Your task to perform on an android device: change text size in settings app Image 0: 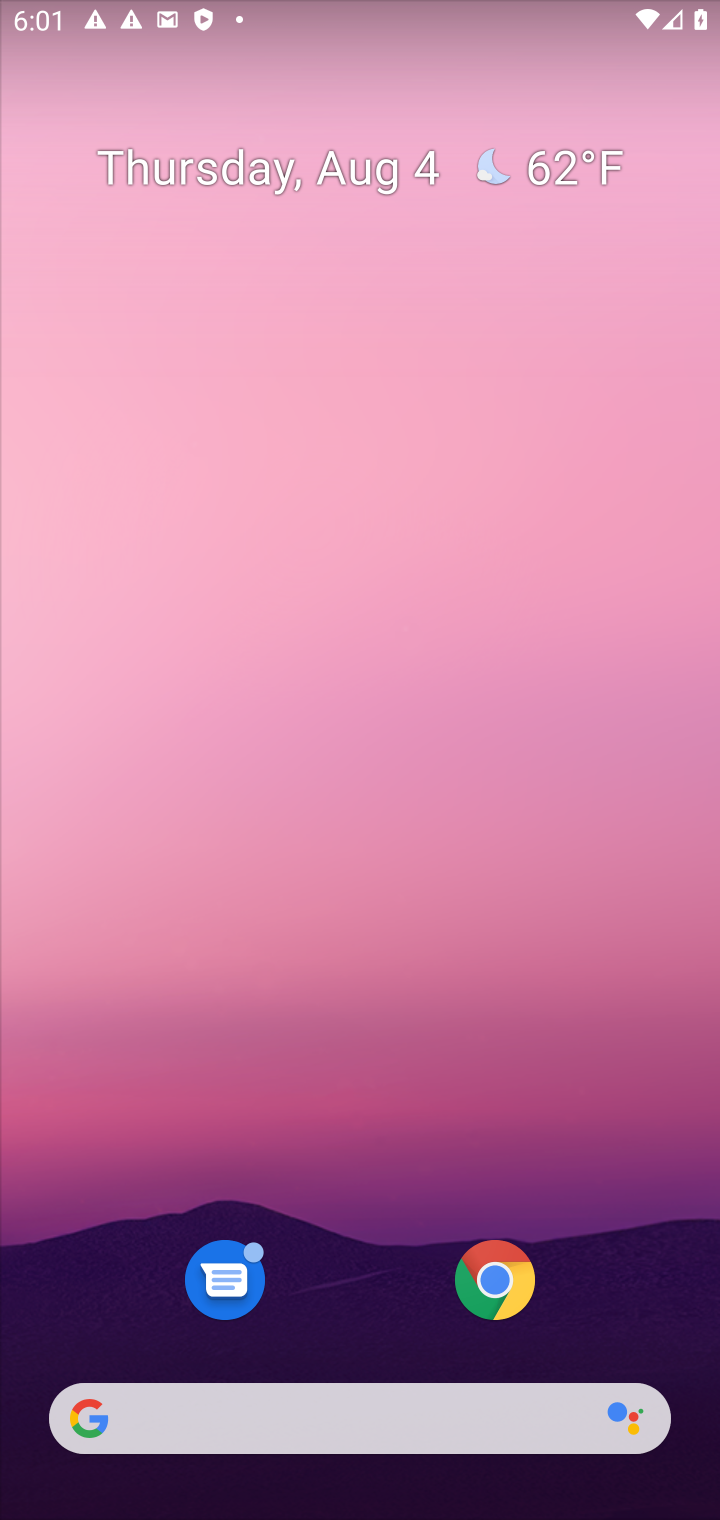
Step 0: press back button
Your task to perform on an android device: change text size in settings app Image 1: 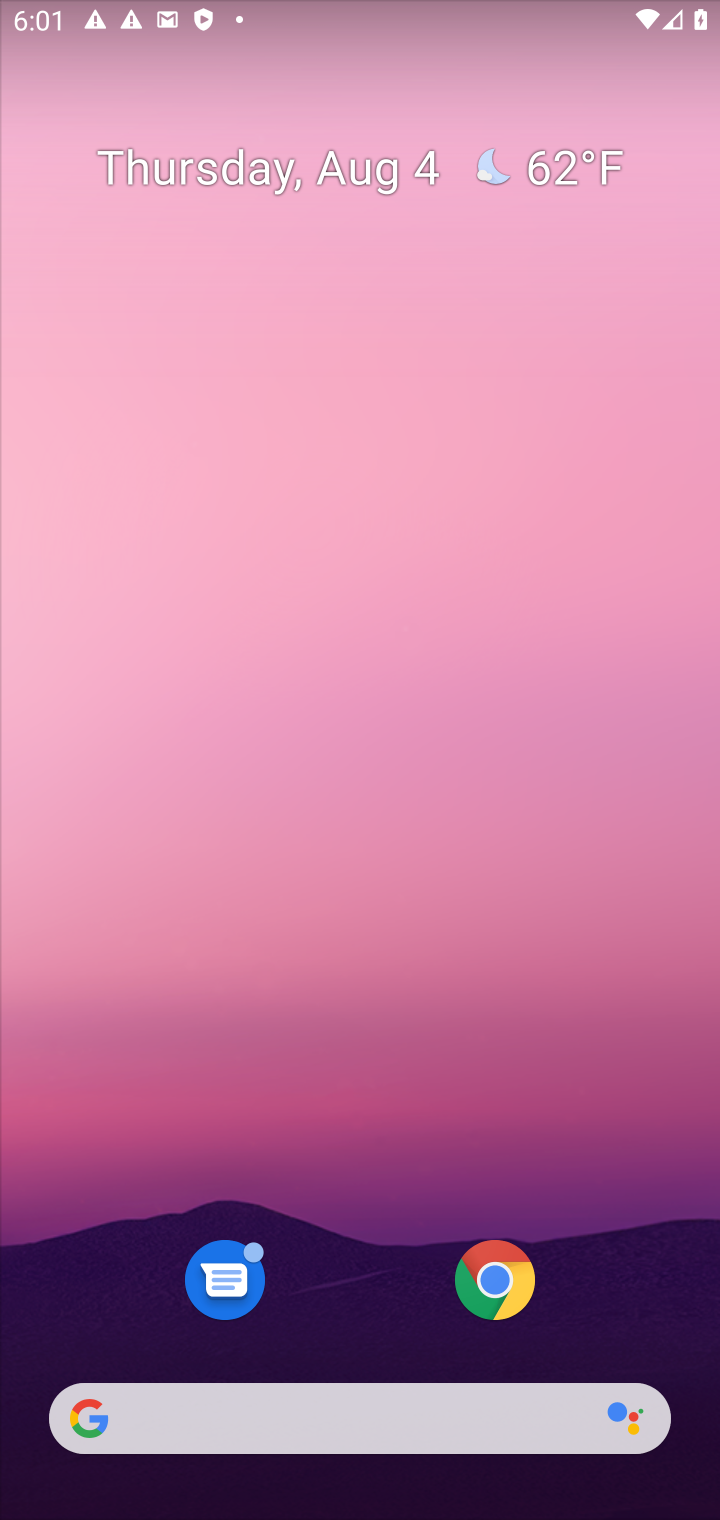
Step 1: drag from (425, 532) to (470, 232)
Your task to perform on an android device: change text size in settings app Image 2: 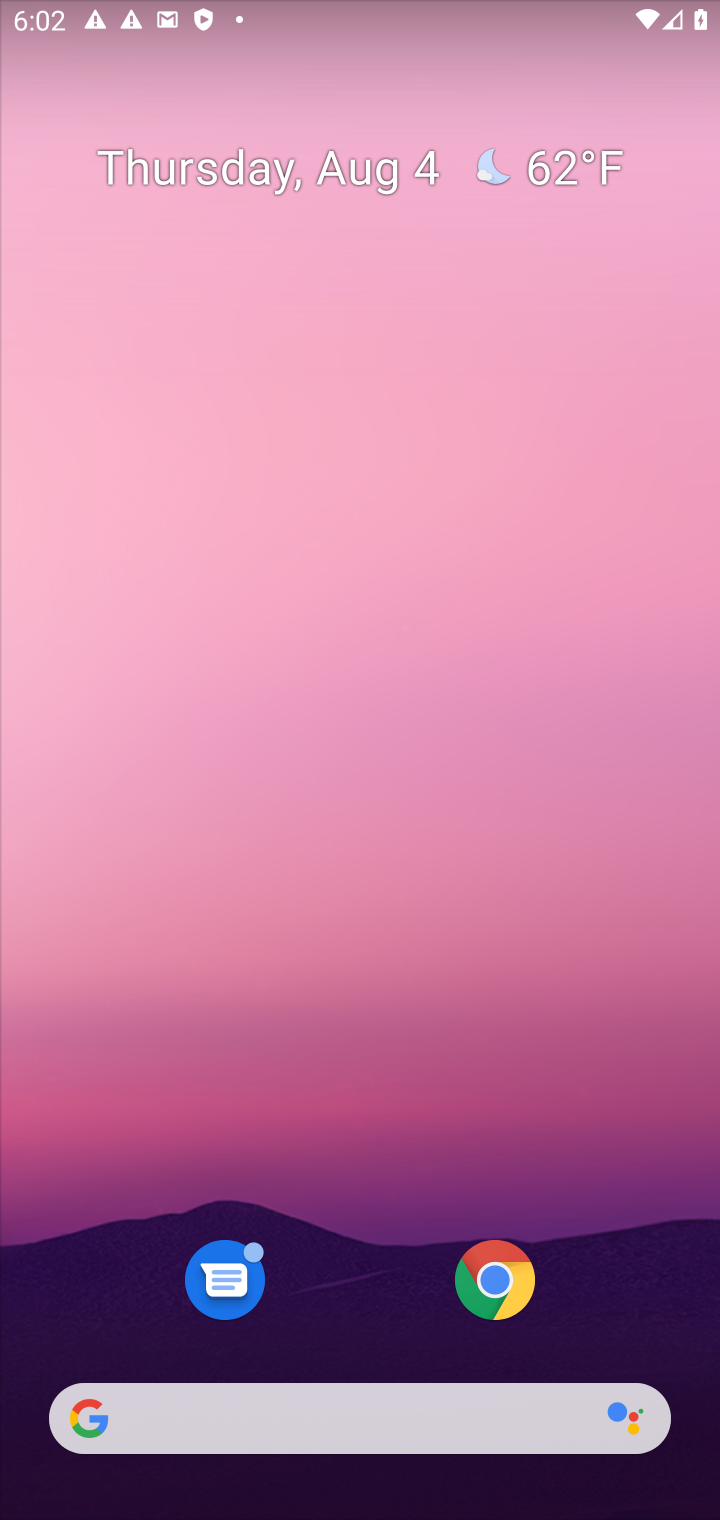
Step 2: drag from (350, 1214) to (438, 191)
Your task to perform on an android device: change text size in settings app Image 3: 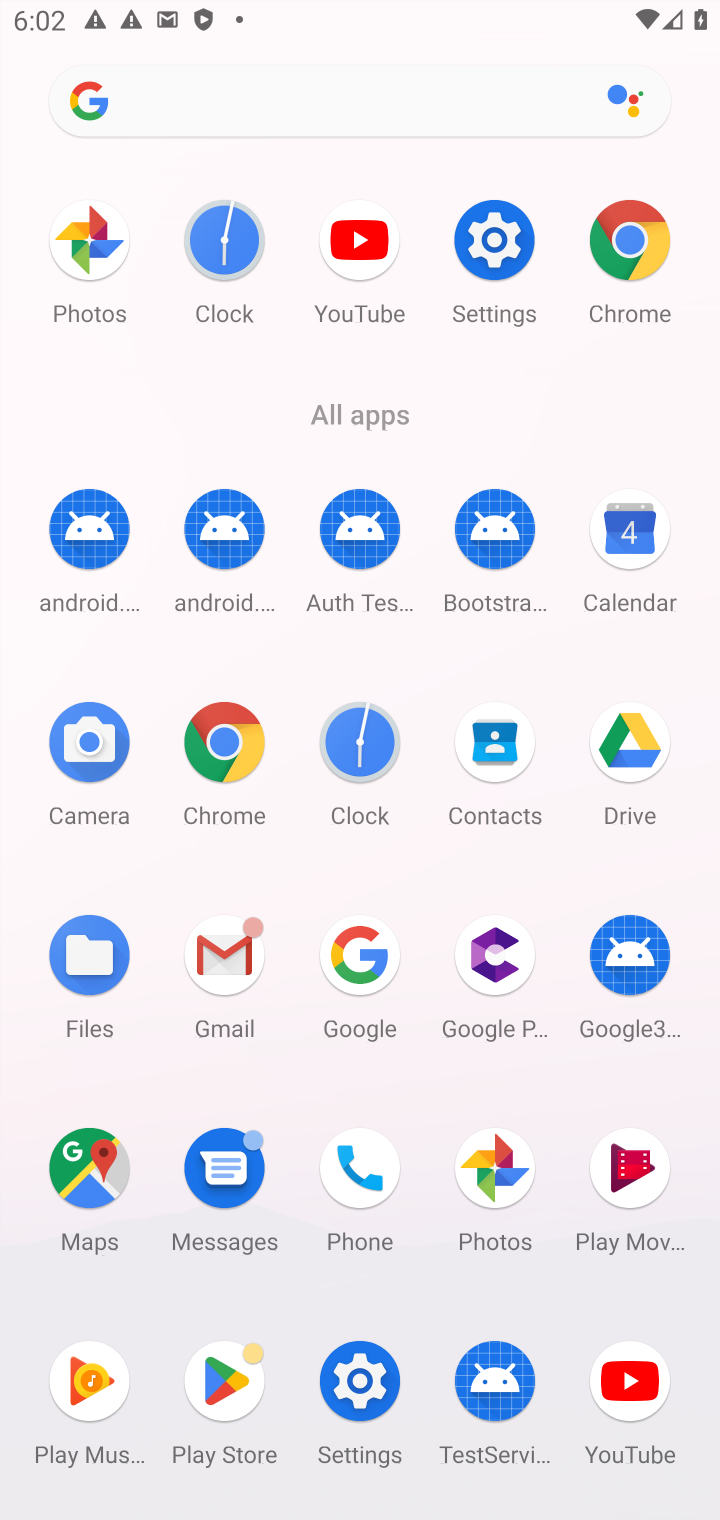
Step 3: click (508, 218)
Your task to perform on an android device: change text size in settings app Image 4: 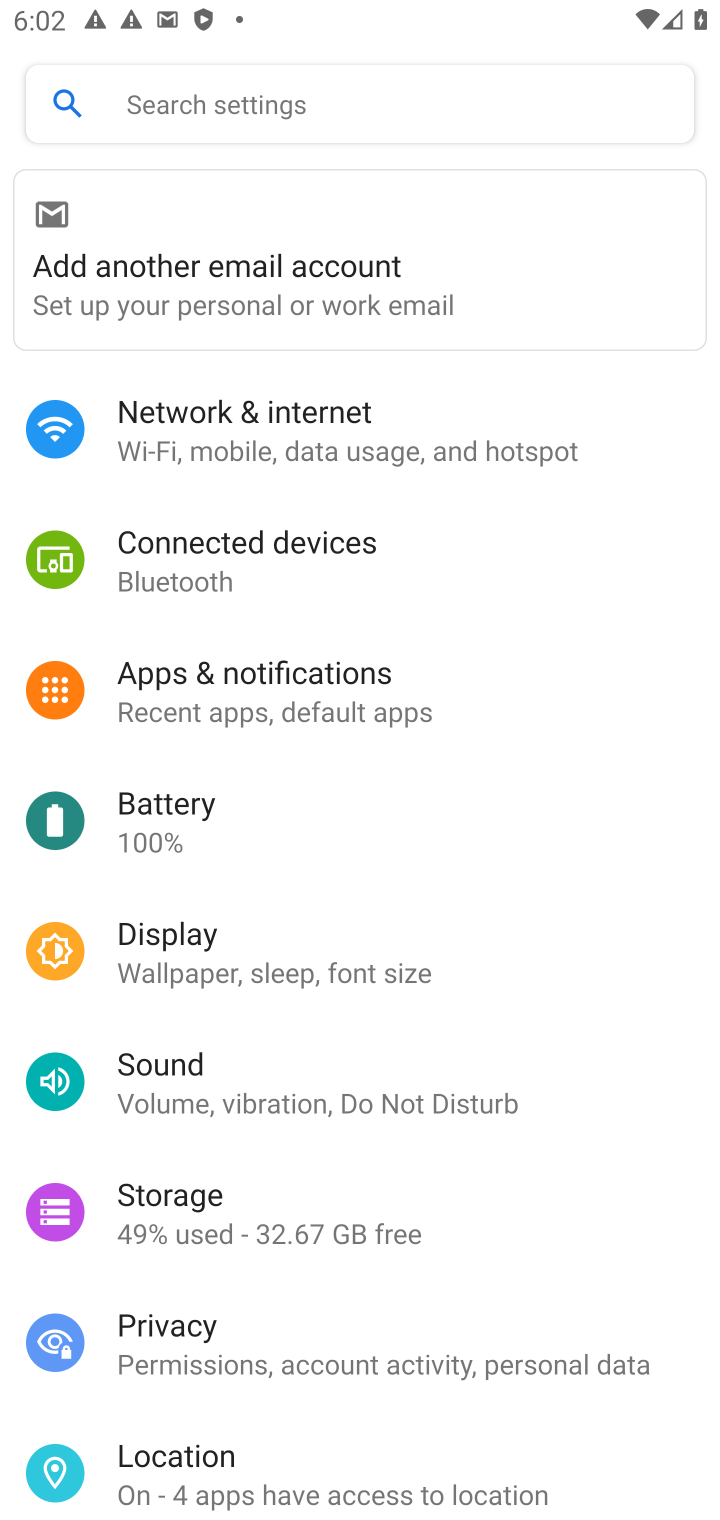
Step 4: click (157, 932)
Your task to perform on an android device: change text size in settings app Image 5: 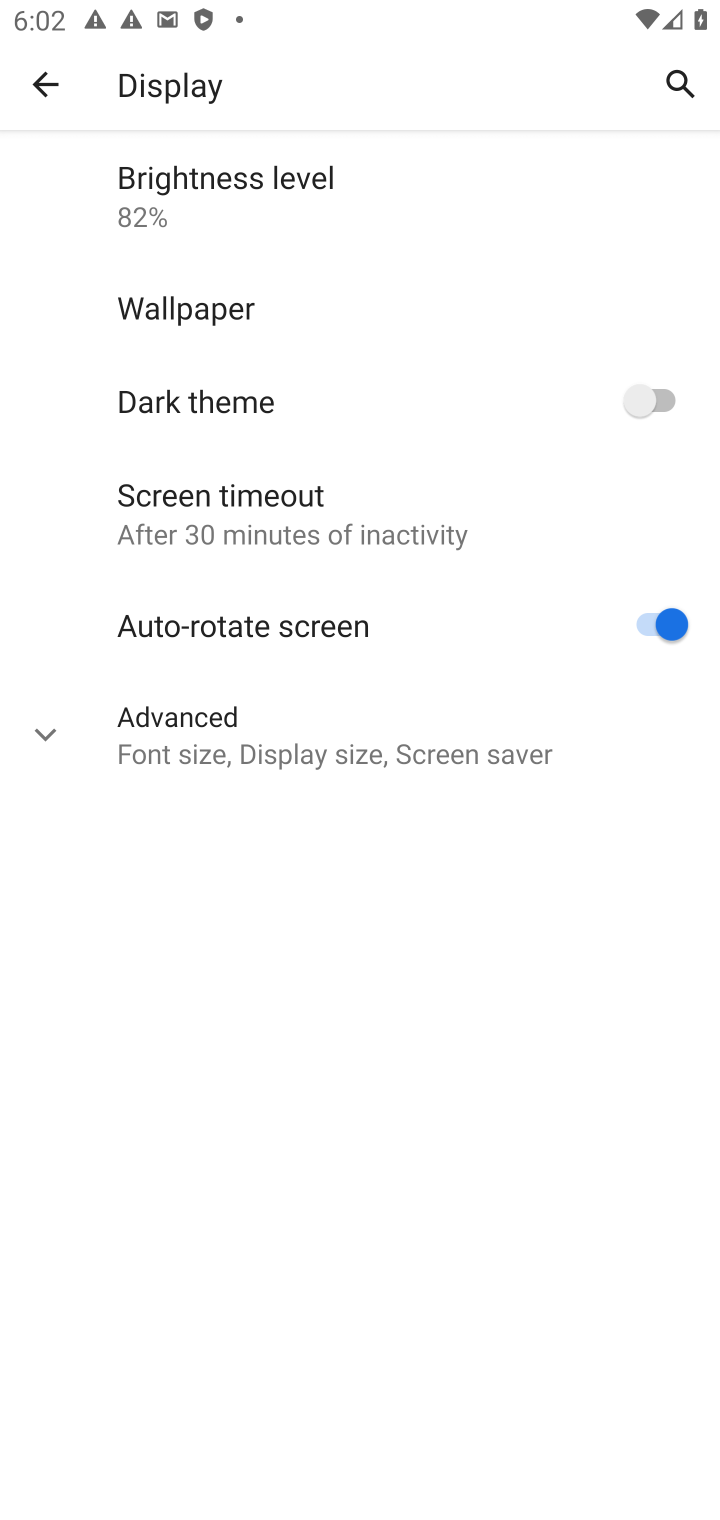
Step 5: click (312, 756)
Your task to perform on an android device: change text size in settings app Image 6: 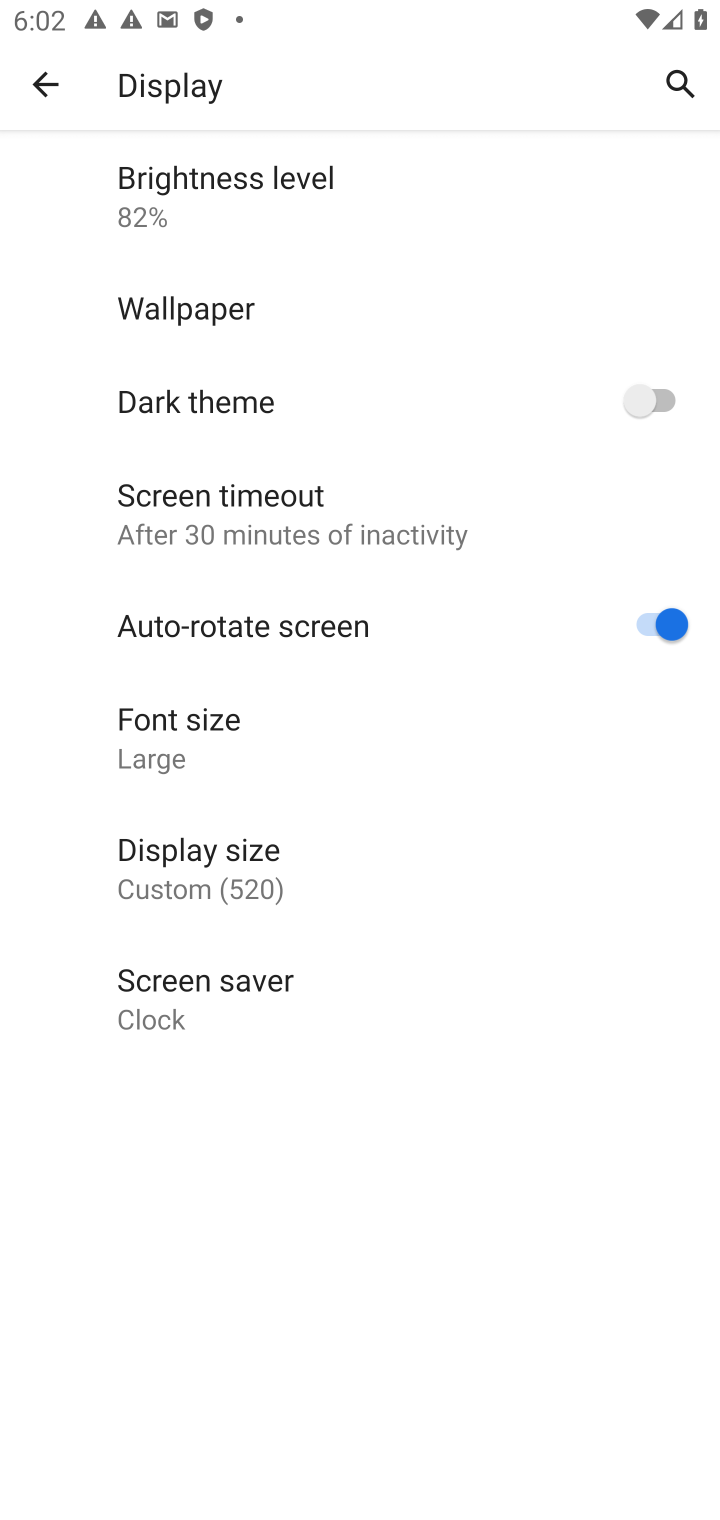
Step 6: click (223, 749)
Your task to perform on an android device: change text size in settings app Image 7: 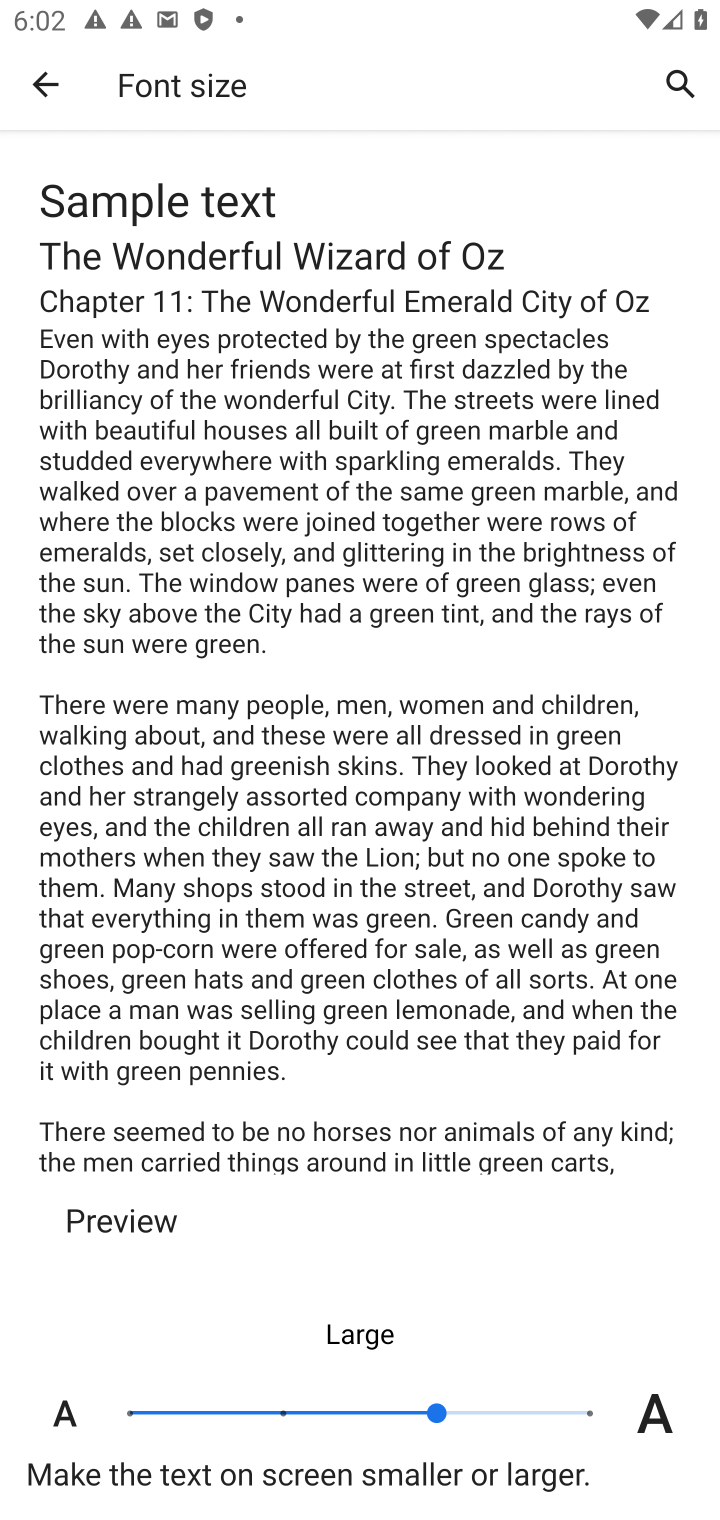
Step 7: click (304, 1412)
Your task to perform on an android device: change text size in settings app Image 8: 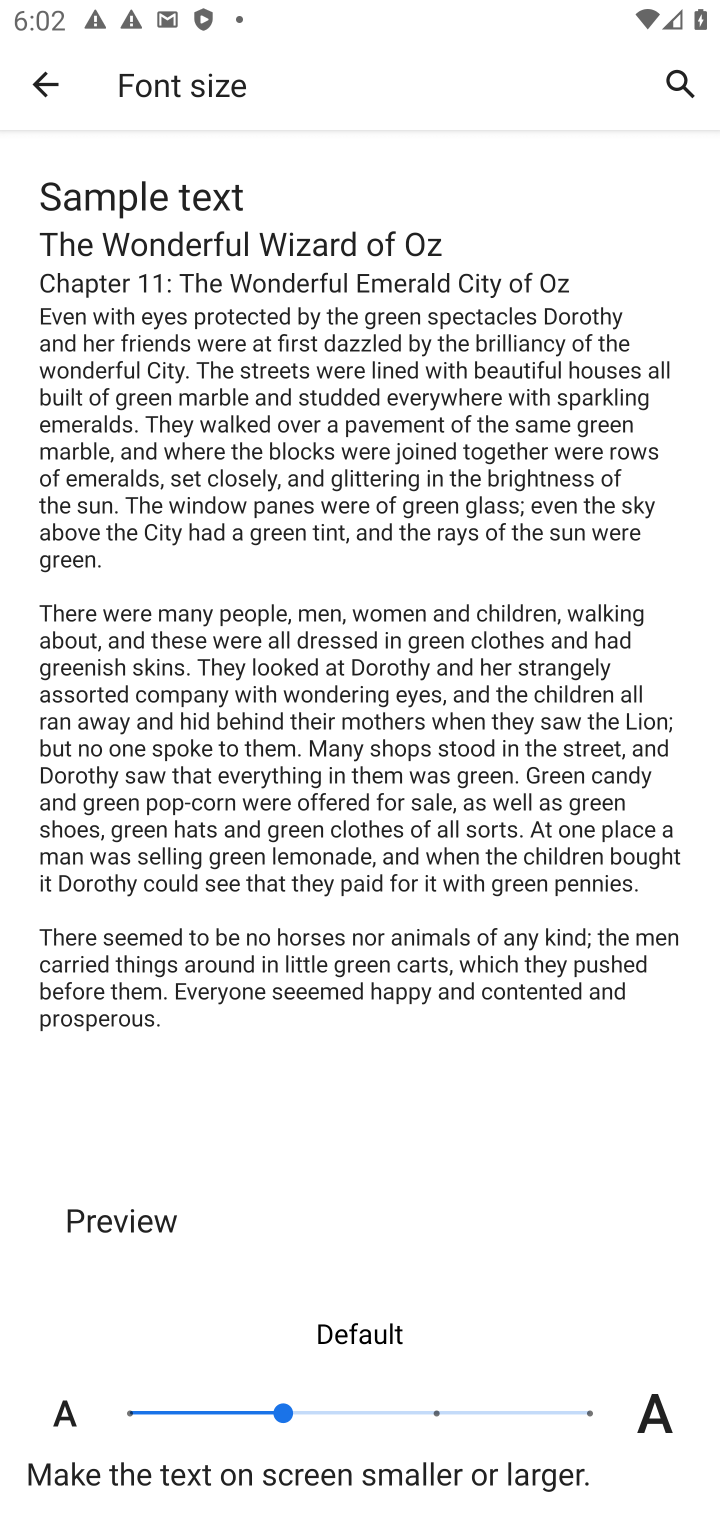
Step 8: task complete